Your task to perform on an android device: Open calendar and show me the second week of next month Image 0: 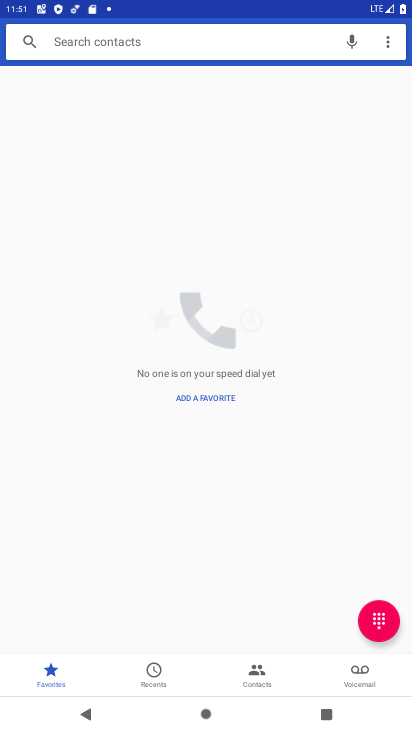
Step 0: press home button
Your task to perform on an android device: Open calendar and show me the second week of next month Image 1: 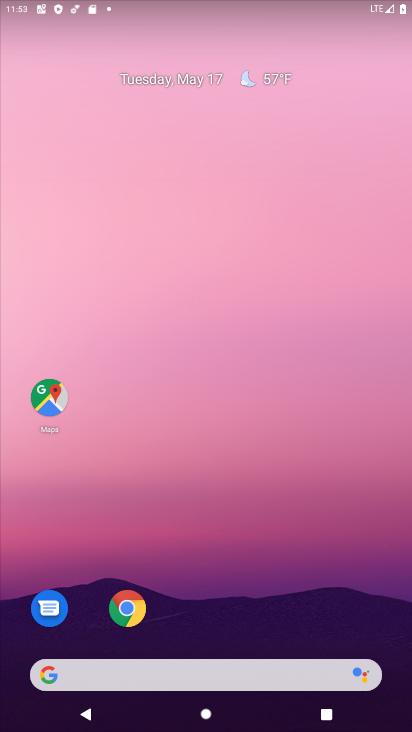
Step 1: drag from (211, 592) to (234, 254)
Your task to perform on an android device: Open calendar and show me the second week of next month Image 2: 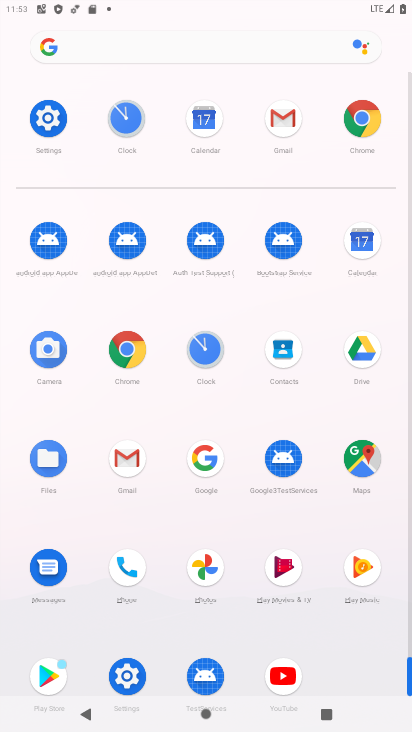
Step 2: click (369, 242)
Your task to perform on an android device: Open calendar and show me the second week of next month Image 3: 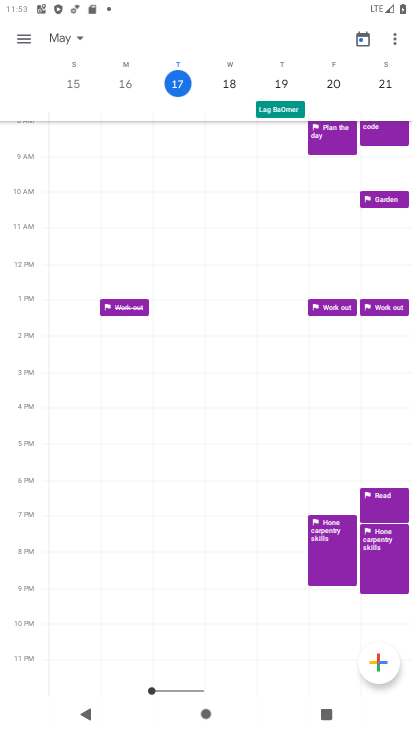
Step 3: click (81, 47)
Your task to perform on an android device: Open calendar and show me the second week of next month Image 4: 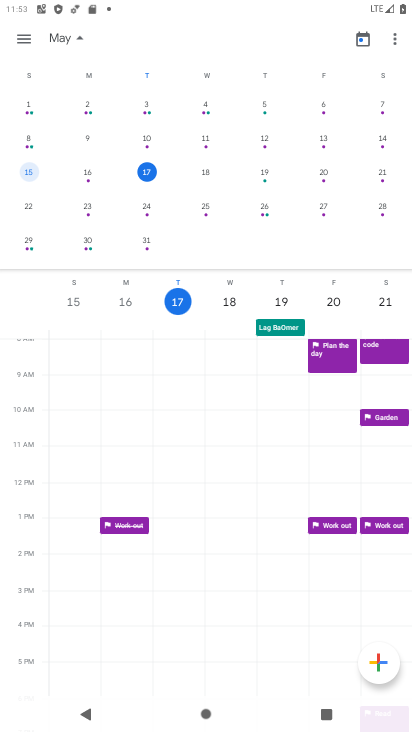
Step 4: drag from (357, 124) to (1, 158)
Your task to perform on an android device: Open calendar and show me the second week of next month Image 5: 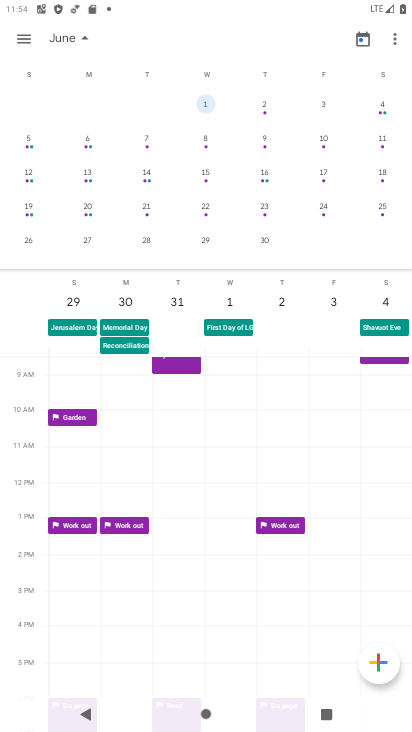
Step 5: click (205, 152)
Your task to perform on an android device: Open calendar and show me the second week of next month Image 6: 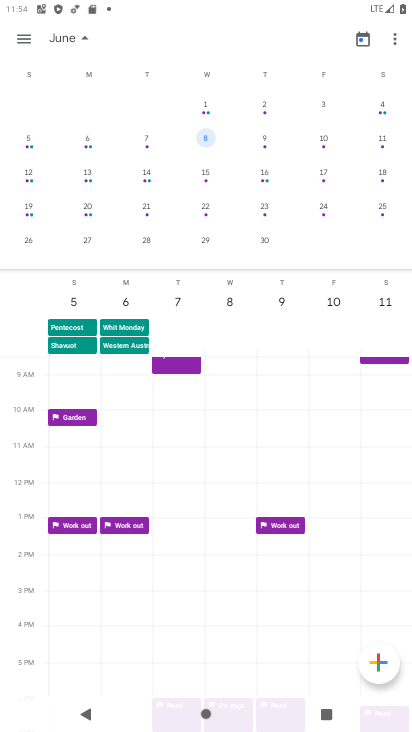
Step 6: task complete